Your task to perform on an android device: see creations saved in the google photos Image 0: 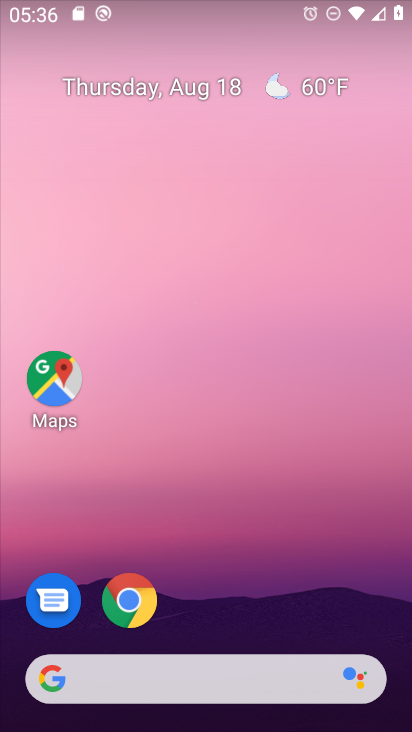
Step 0: press home button
Your task to perform on an android device: see creations saved in the google photos Image 1: 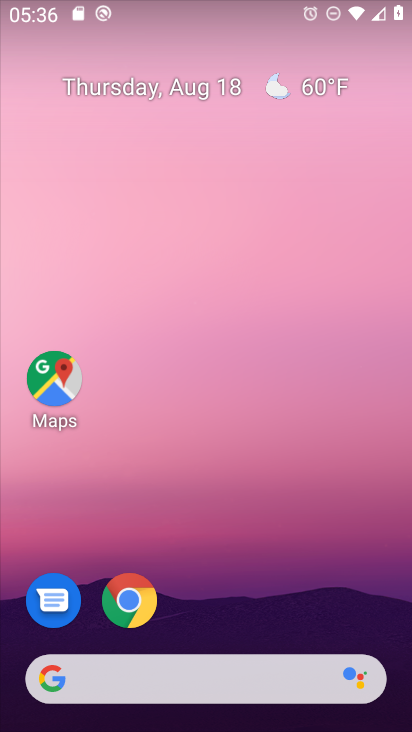
Step 1: drag from (259, 620) to (302, 6)
Your task to perform on an android device: see creations saved in the google photos Image 2: 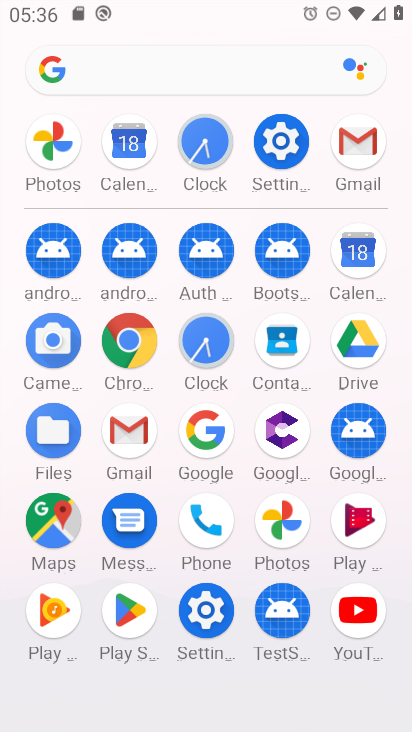
Step 2: click (49, 153)
Your task to perform on an android device: see creations saved in the google photos Image 3: 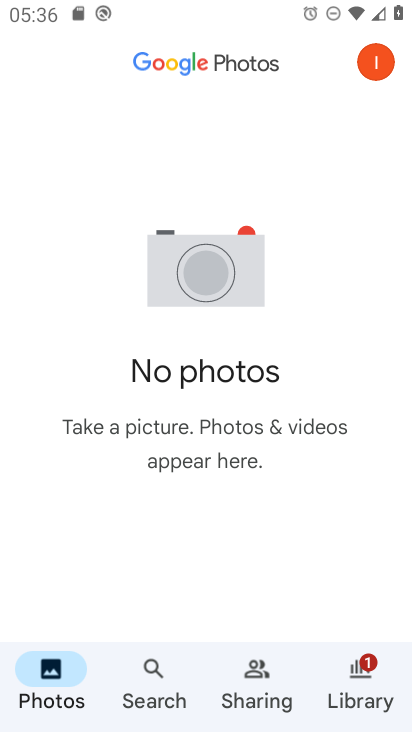
Step 3: click (150, 670)
Your task to perform on an android device: see creations saved in the google photos Image 4: 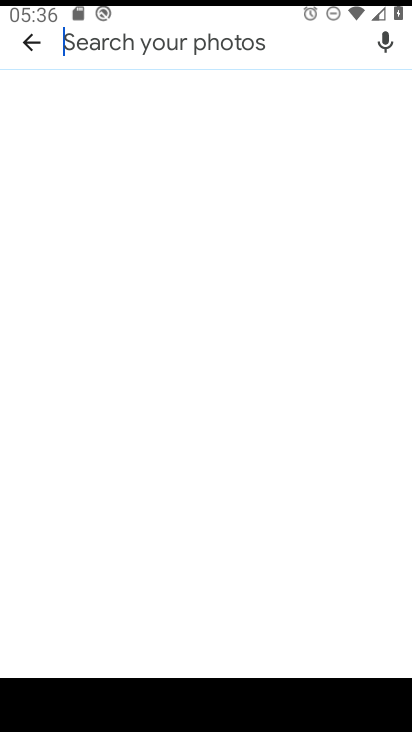
Step 4: click (25, 44)
Your task to perform on an android device: see creations saved in the google photos Image 5: 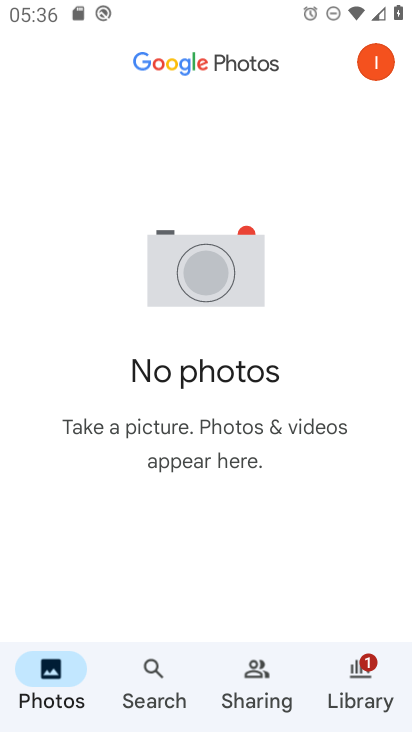
Step 5: task complete